Your task to perform on an android device: Clear the cart on amazon.com. Search for rayovac triple a on amazon.com, select the first entry, and add it to the cart. Image 0: 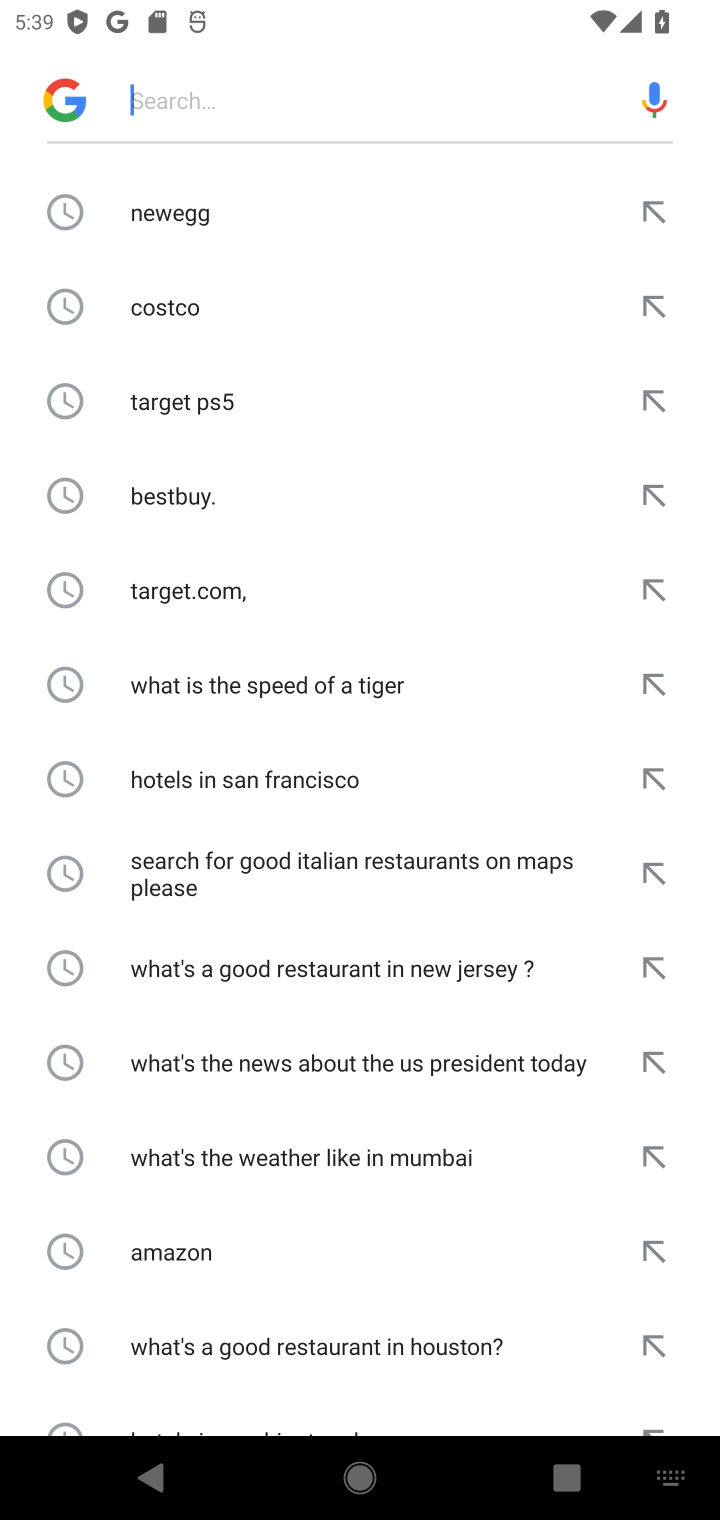
Step 0: press home button
Your task to perform on an android device: Clear the cart on amazon.com. Search for rayovac triple a on amazon.com, select the first entry, and add it to the cart. Image 1: 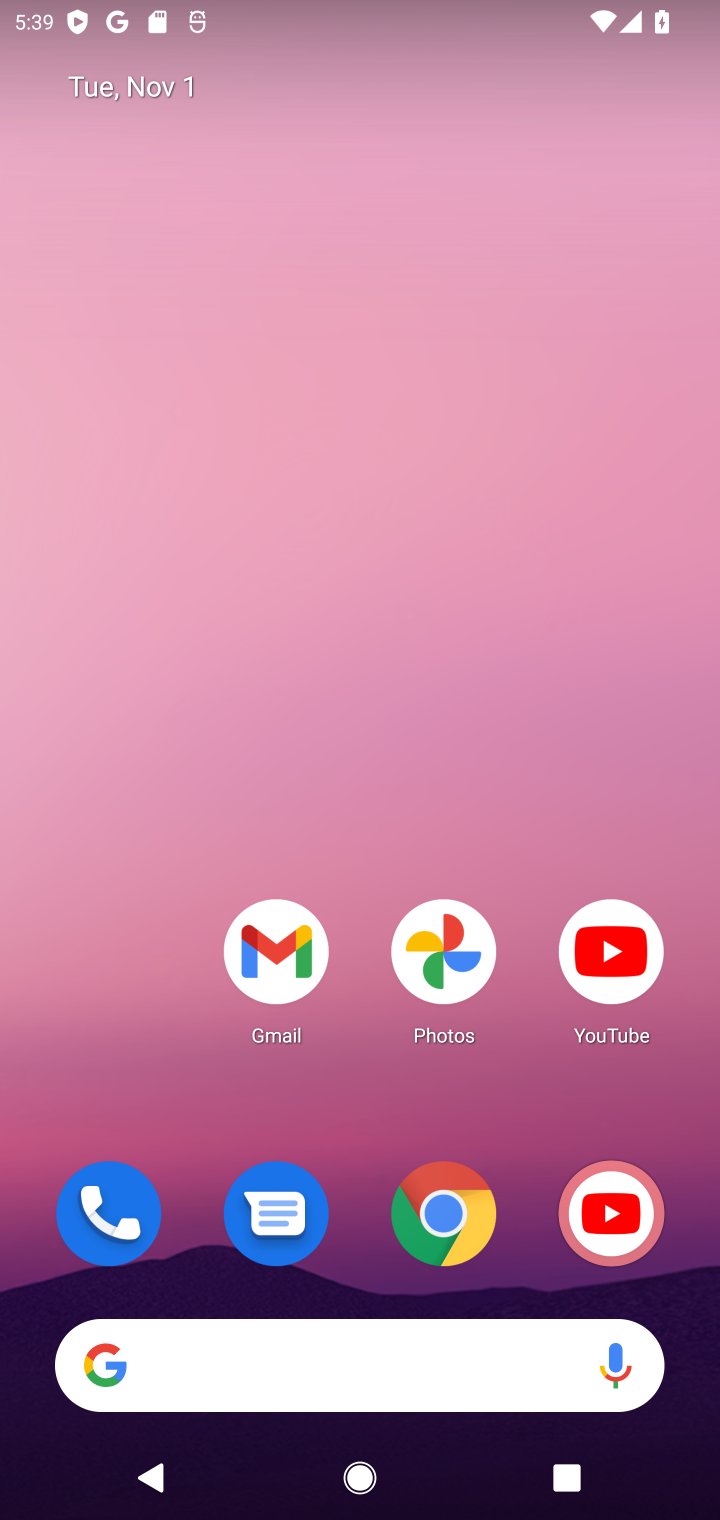
Step 1: click (431, 1218)
Your task to perform on an android device: Clear the cart on amazon.com. Search for rayovac triple a on amazon.com, select the first entry, and add it to the cart. Image 2: 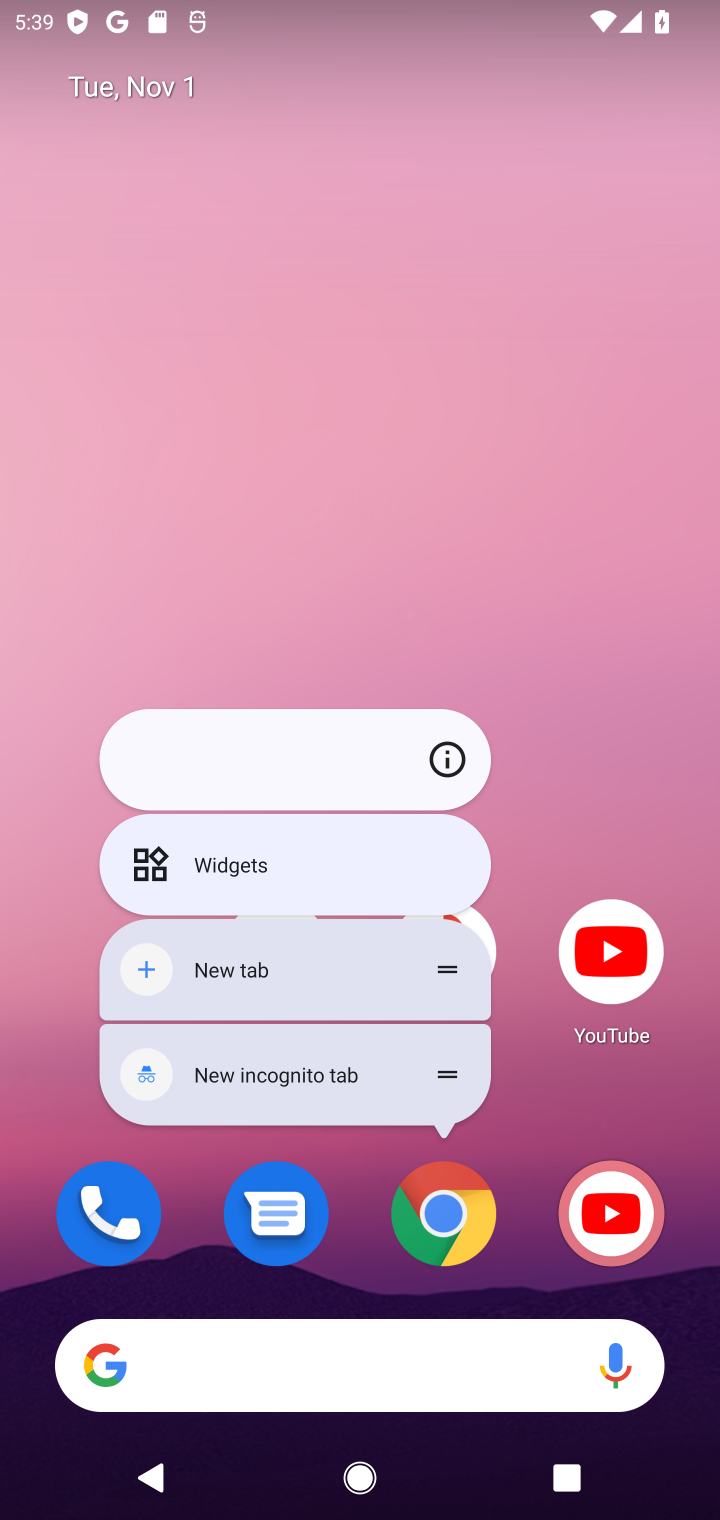
Step 2: click (450, 1246)
Your task to perform on an android device: Clear the cart on amazon.com. Search for rayovac triple a on amazon.com, select the first entry, and add it to the cart. Image 3: 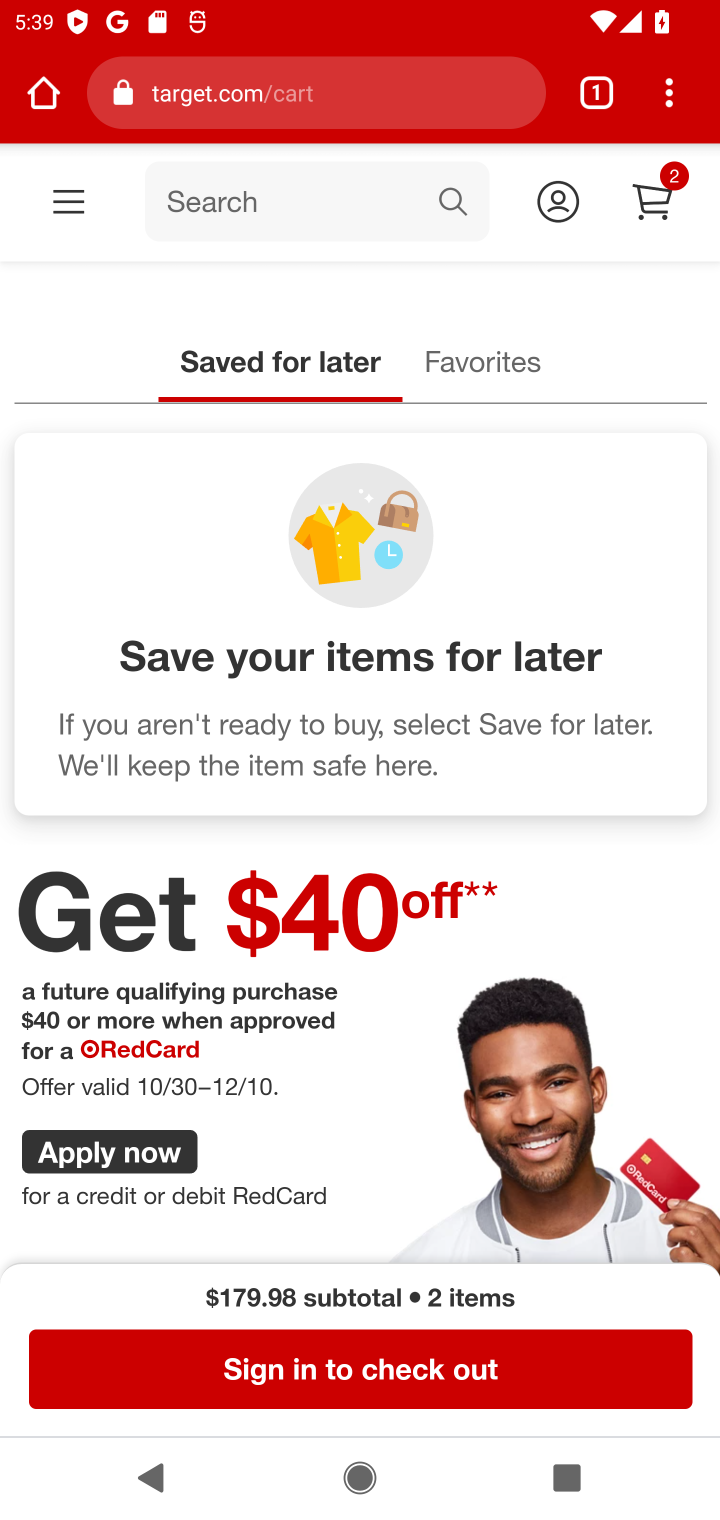
Step 3: click (278, 99)
Your task to perform on an android device: Clear the cart on amazon.com. Search for rayovac triple a on amazon.com, select the first entry, and add it to the cart. Image 4: 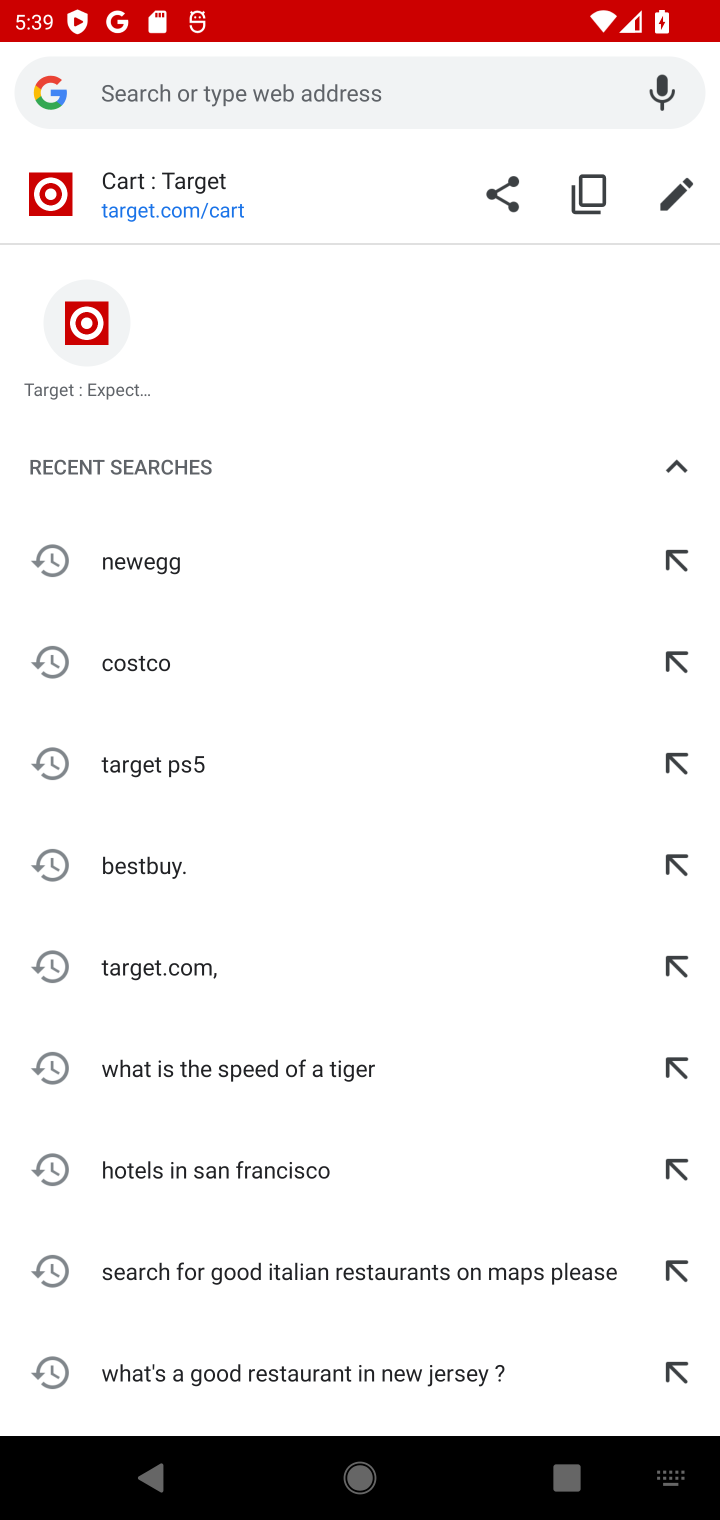
Step 4: type " amazon.com"
Your task to perform on an android device: Clear the cart on amazon.com. Search for rayovac triple a on amazon.com, select the first entry, and add it to the cart. Image 5: 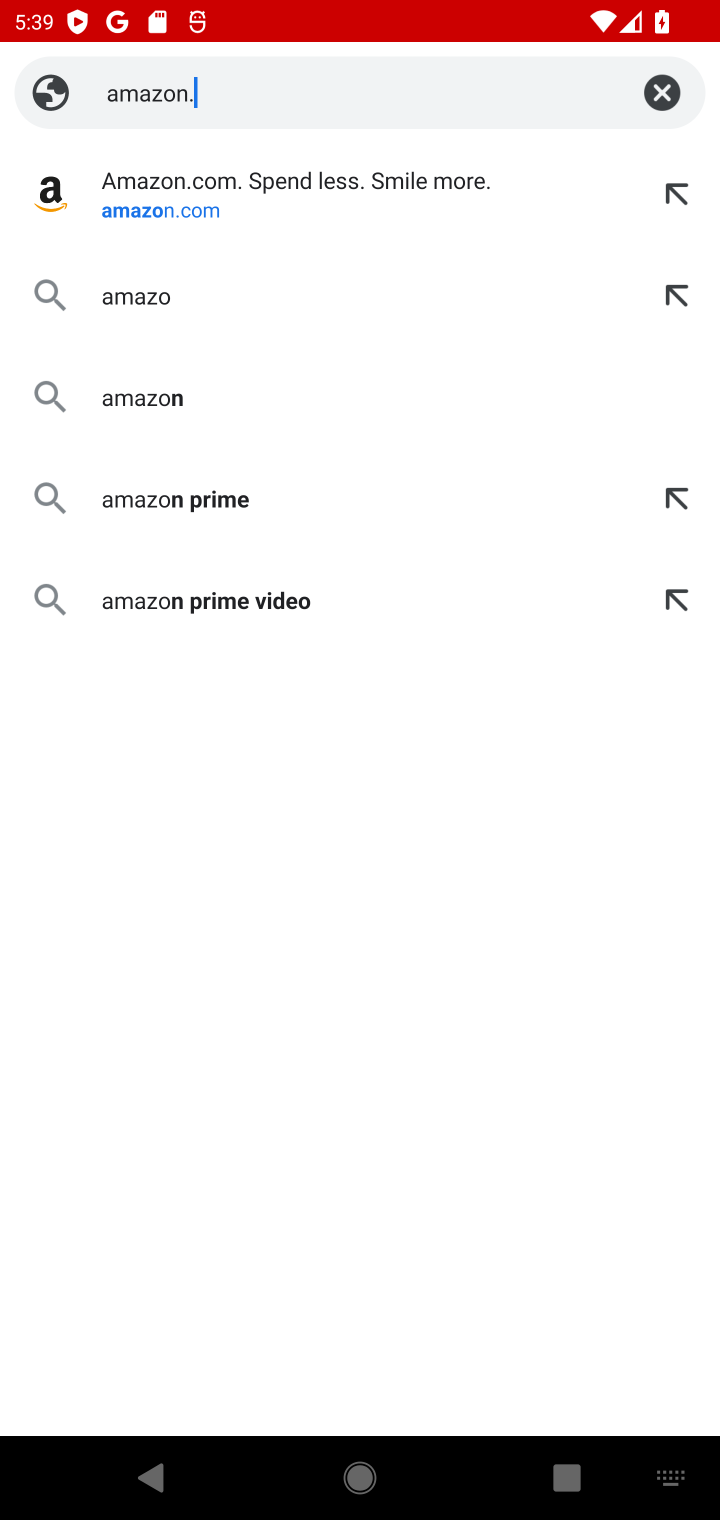
Step 5: type ""
Your task to perform on an android device: Clear the cart on amazon.com. Search for rayovac triple a on amazon.com, select the first entry, and add it to the cart. Image 6: 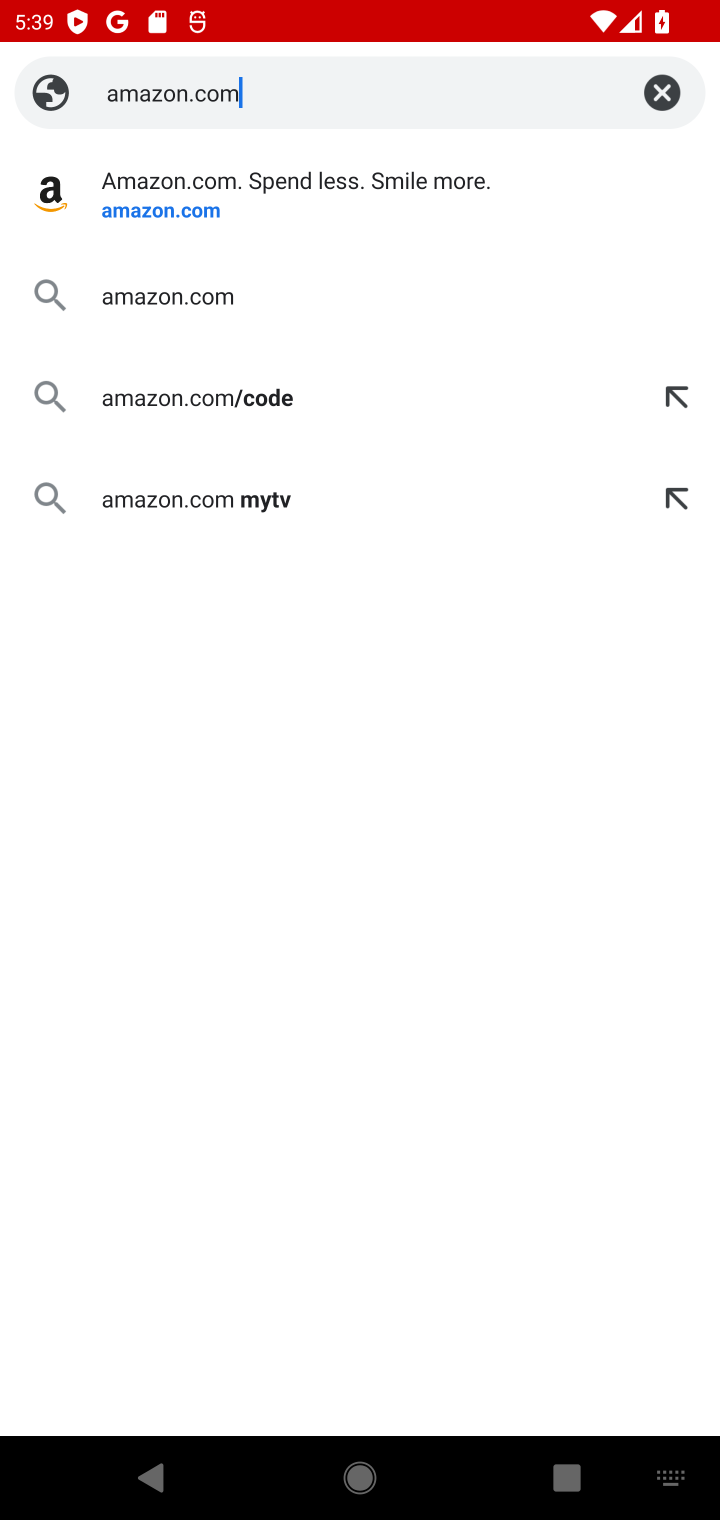
Step 6: click (392, 226)
Your task to perform on an android device: Clear the cart on amazon.com. Search for rayovac triple a on amazon.com, select the first entry, and add it to the cart. Image 7: 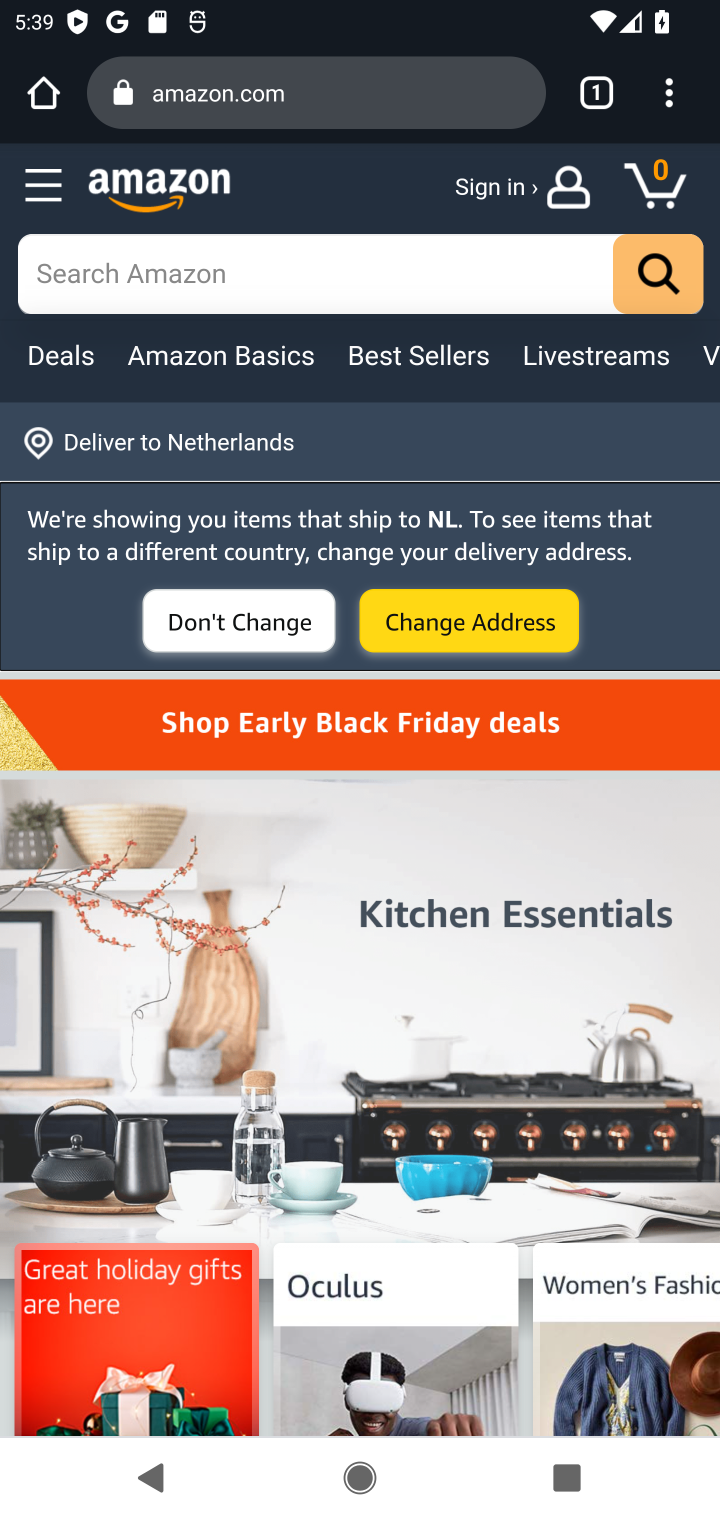
Step 7: click (659, 181)
Your task to perform on an android device: Clear the cart on amazon.com. Search for rayovac triple a on amazon.com, select the first entry, and add it to the cart. Image 8: 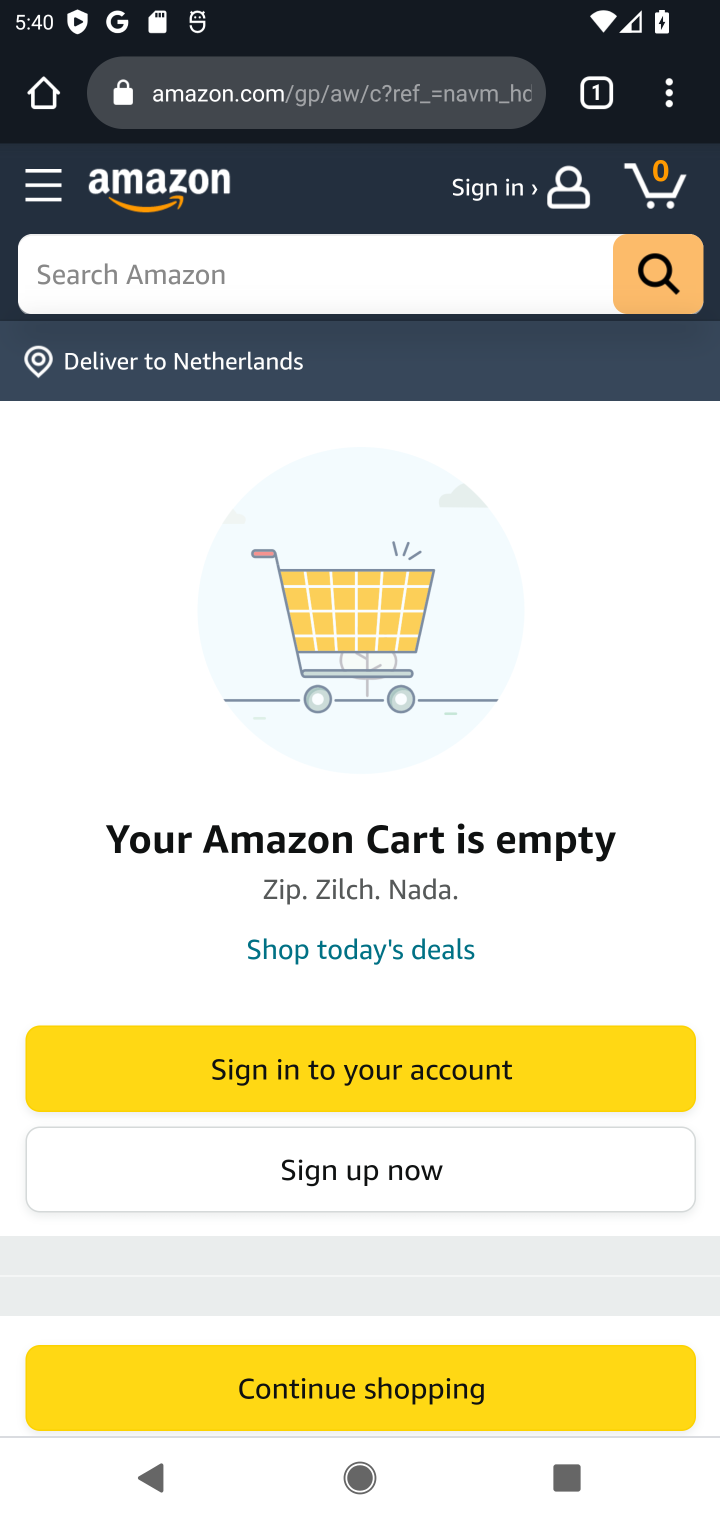
Step 8: click (316, 268)
Your task to perform on an android device: Clear the cart on amazon.com. Search for rayovac triple a on amazon.com, select the first entry, and add it to the cart. Image 9: 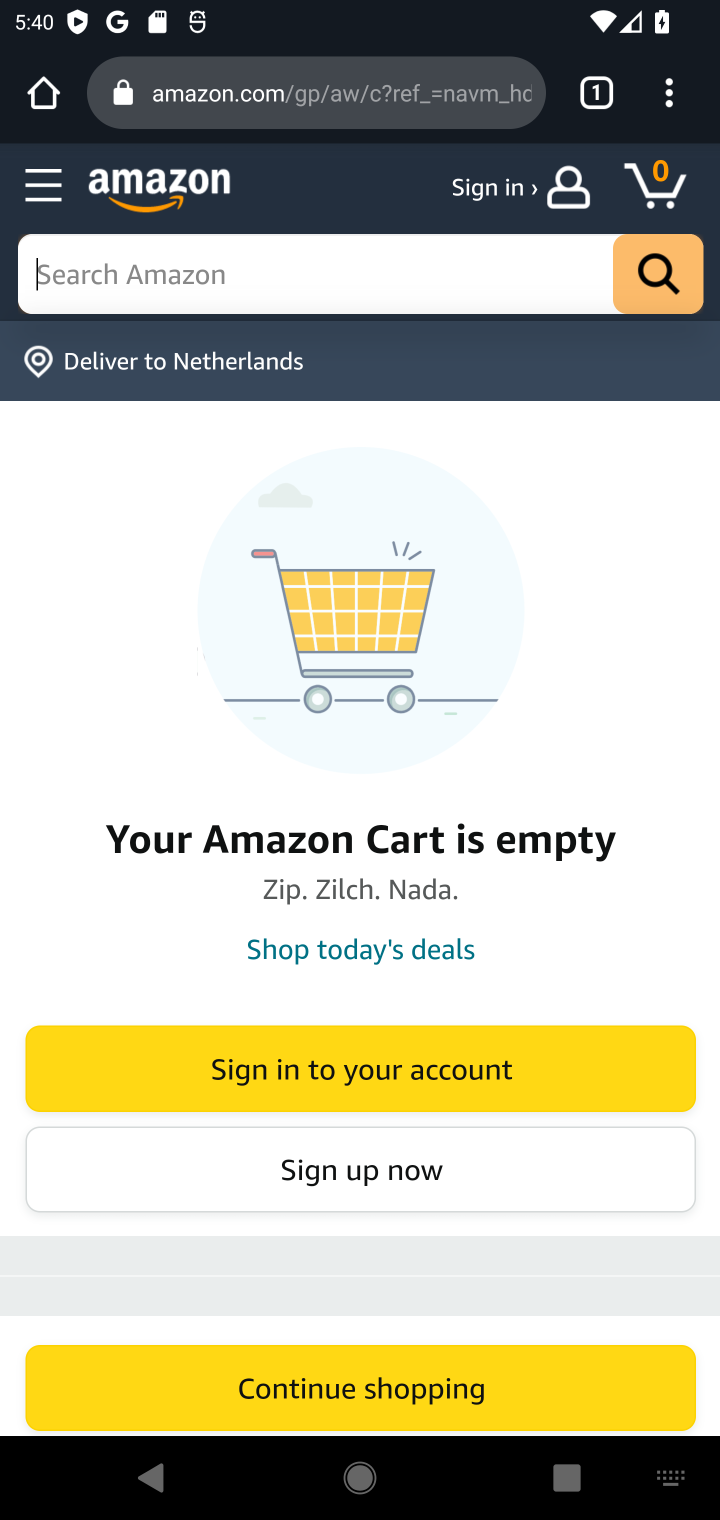
Step 9: type "rayovac triple"
Your task to perform on an android device: Clear the cart on amazon.com. Search for rayovac triple a on amazon.com, select the first entry, and add it to the cart. Image 10: 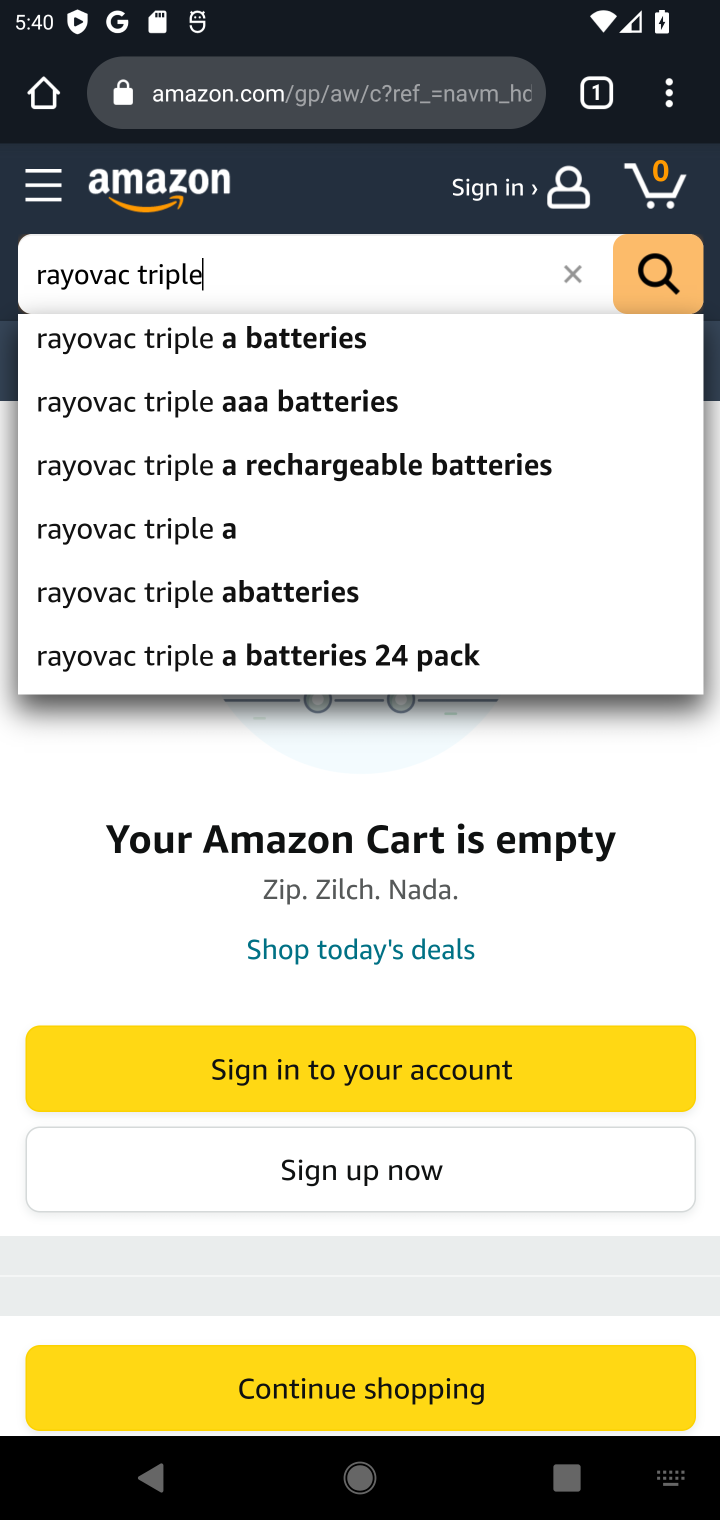
Step 10: click (364, 336)
Your task to perform on an android device: Clear the cart on amazon.com. Search for rayovac triple a on amazon.com, select the first entry, and add it to the cart. Image 11: 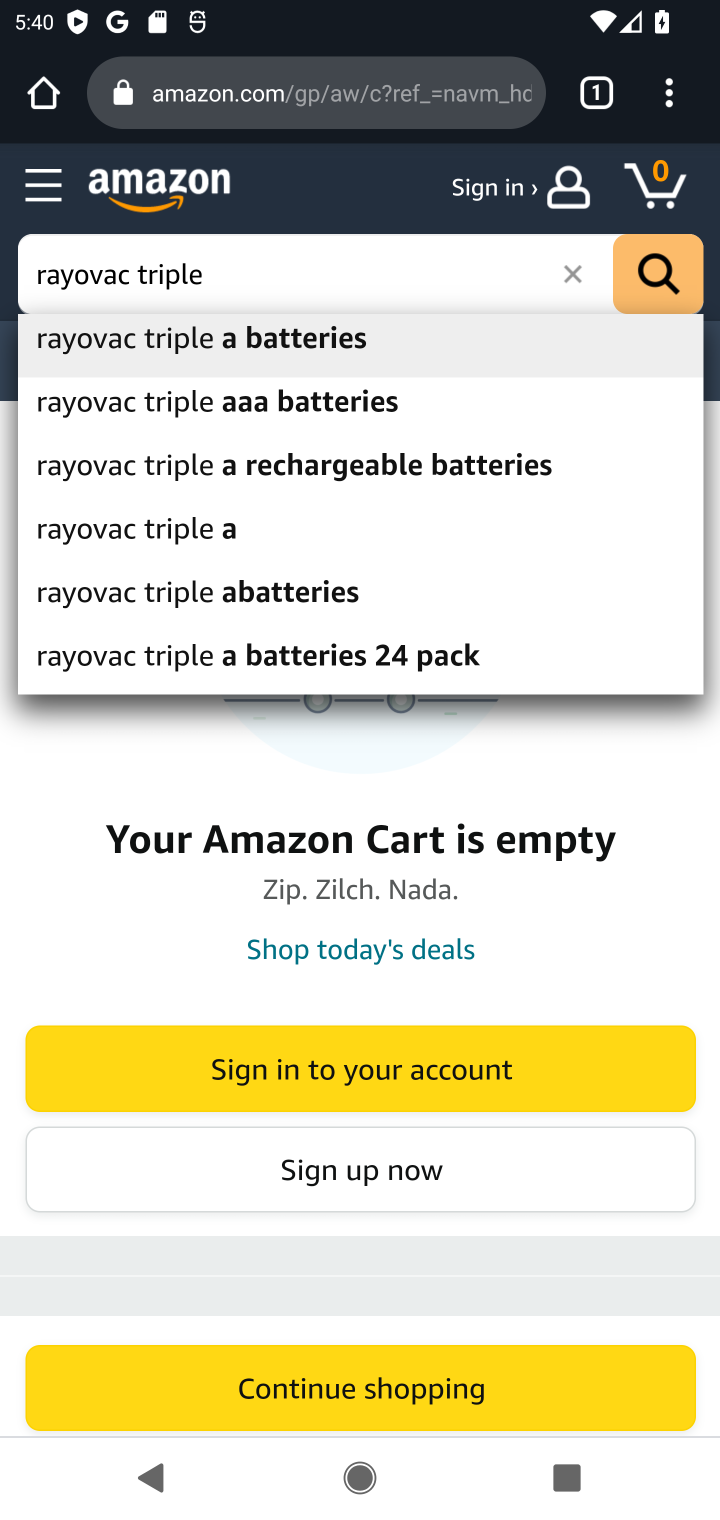
Step 11: click (358, 332)
Your task to perform on an android device: Clear the cart on amazon.com. Search for rayovac triple a on amazon.com, select the first entry, and add it to the cart. Image 12: 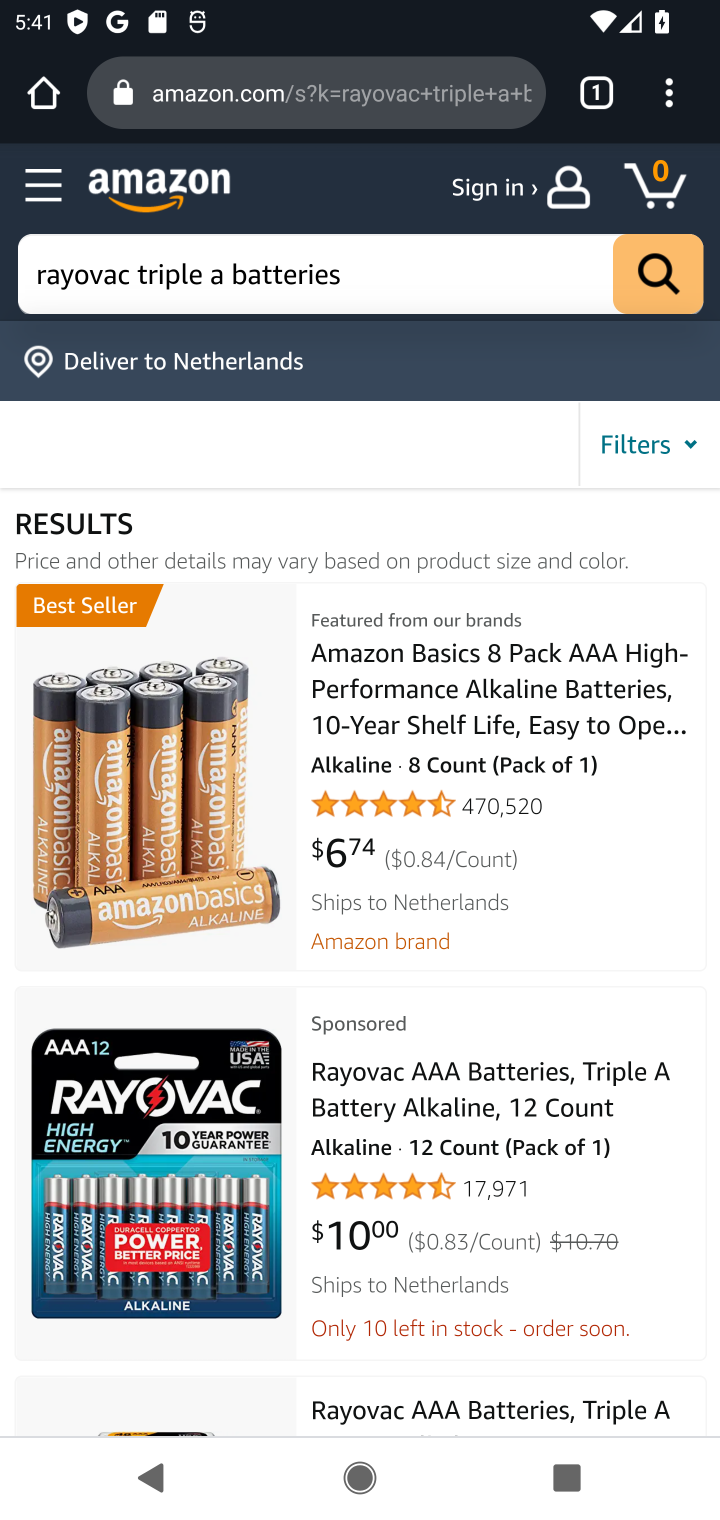
Step 12: click (413, 1101)
Your task to perform on an android device: Clear the cart on amazon.com. Search for rayovac triple a on amazon.com, select the first entry, and add it to the cart. Image 13: 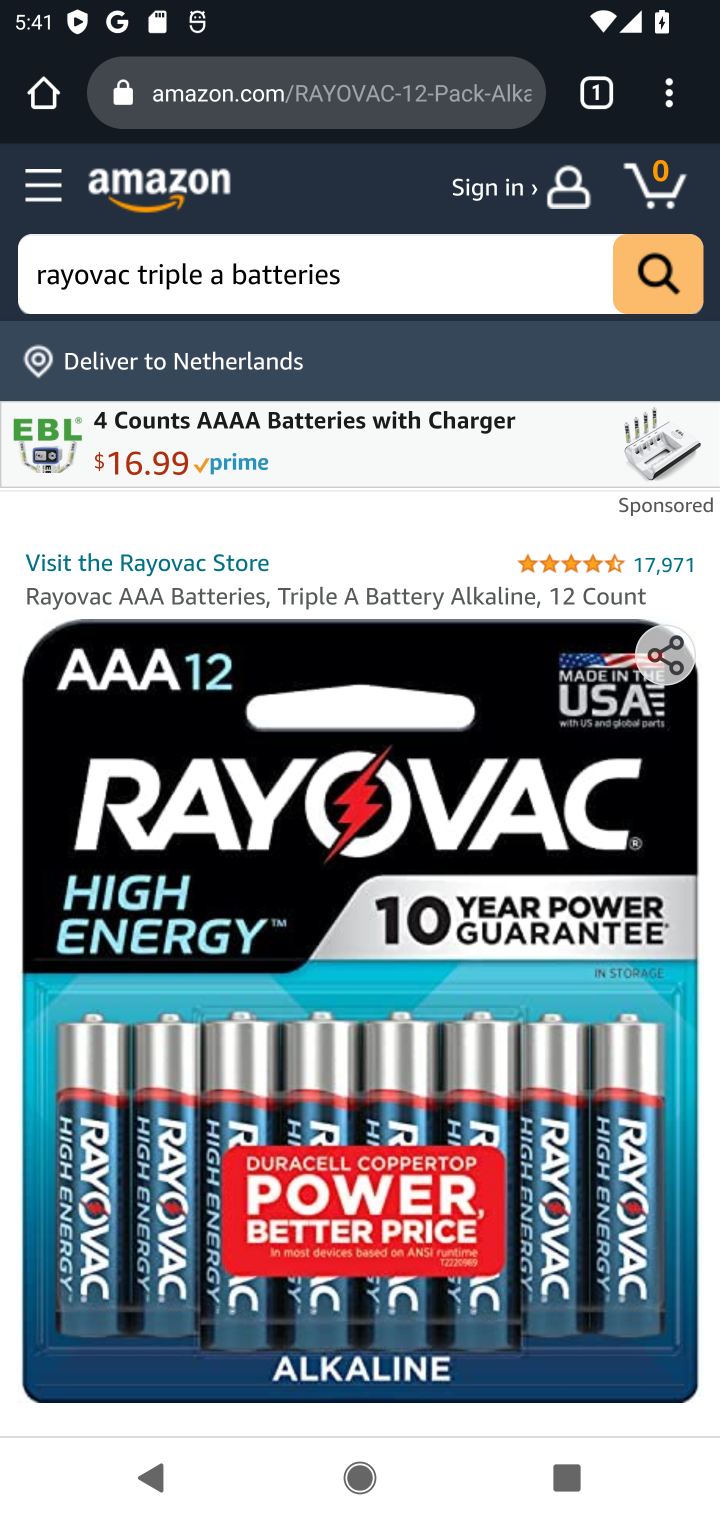
Step 13: drag from (351, 1088) to (393, 590)
Your task to perform on an android device: Clear the cart on amazon.com. Search for rayovac triple a on amazon.com, select the first entry, and add it to the cart. Image 14: 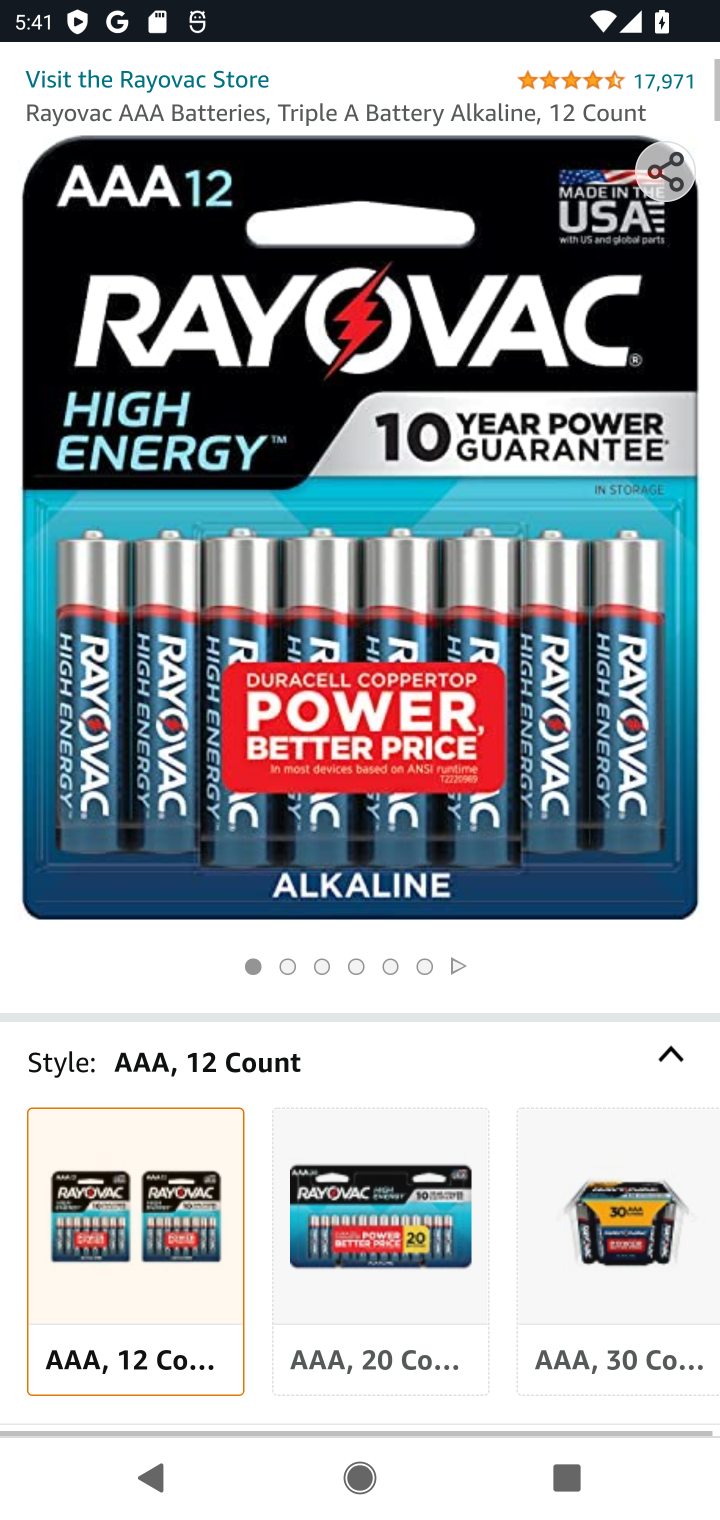
Step 14: drag from (488, 1160) to (514, 484)
Your task to perform on an android device: Clear the cart on amazon.com. Search for rayovac triple a on amazon.com, select the first entry, and add it to the cart. Image 15: 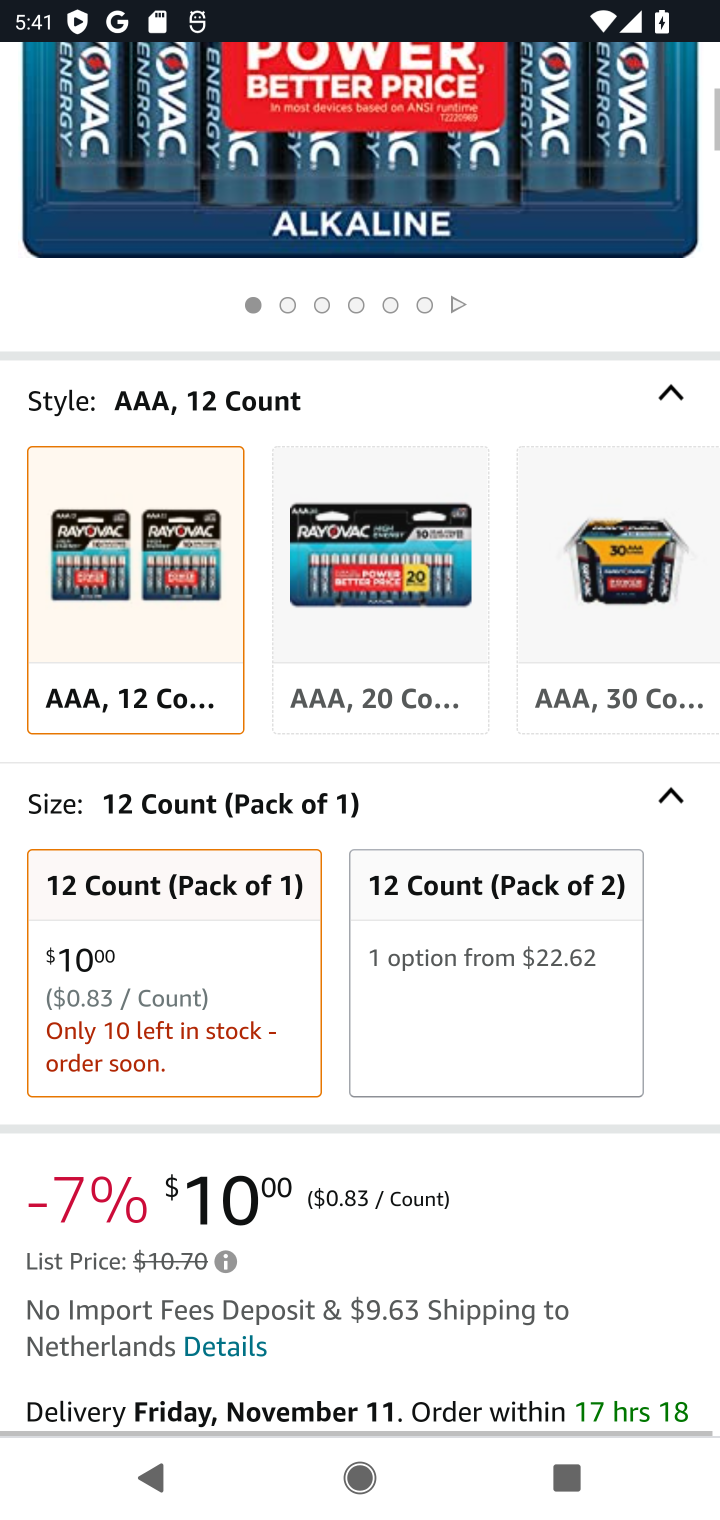
Step 15: drag from (398, 1080) to (353, 424)
Your task to perform on an android device: Clear the cart on amazon.com. Search for rayovac triple a on amazon.com, select the first entry, and add it to the cart. Image 16: 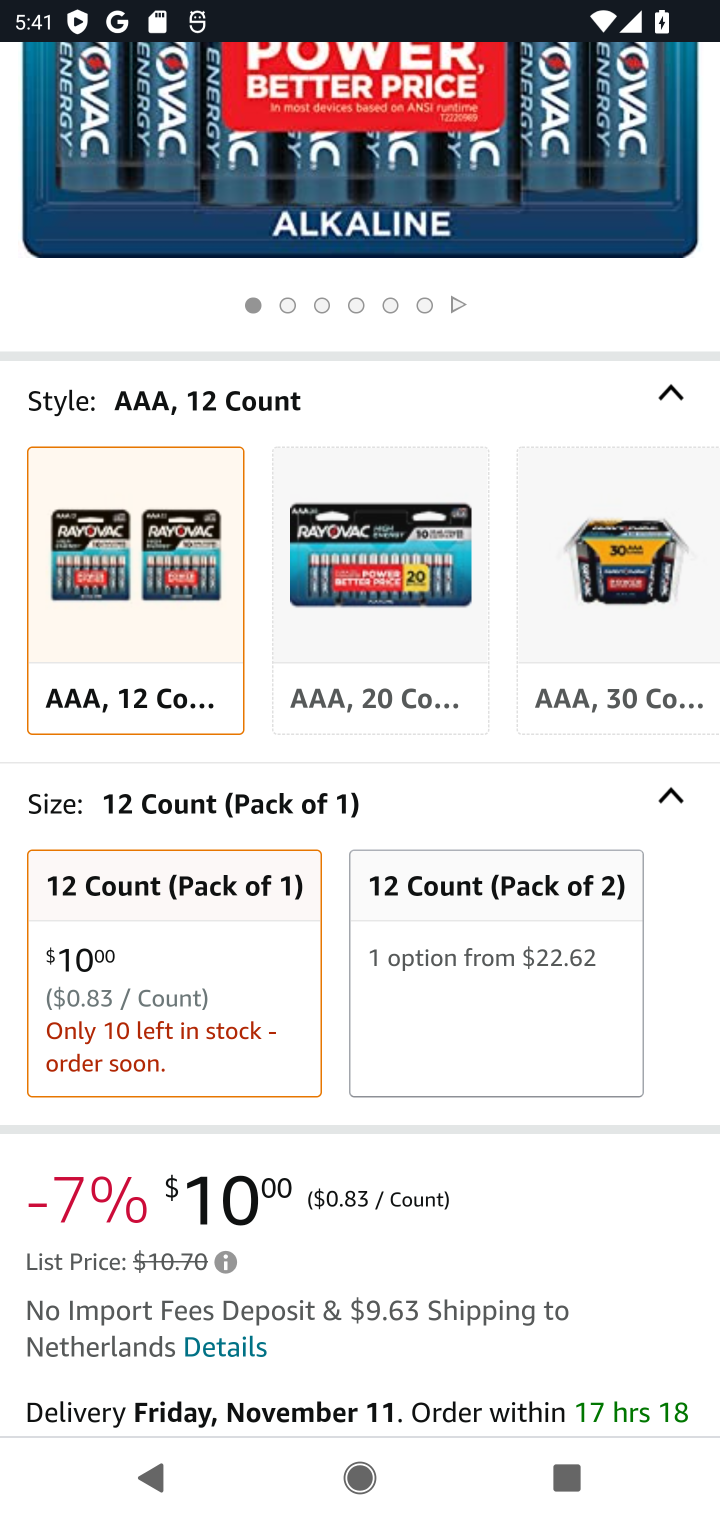
Step 16: drag from (417, 1059) to (427, 524)
Your task to perform on an android device: Clear the cart on amazon.com. Search for rayovac triple a on amazon.com, select the first entry, and add it to the cart. Image 17: 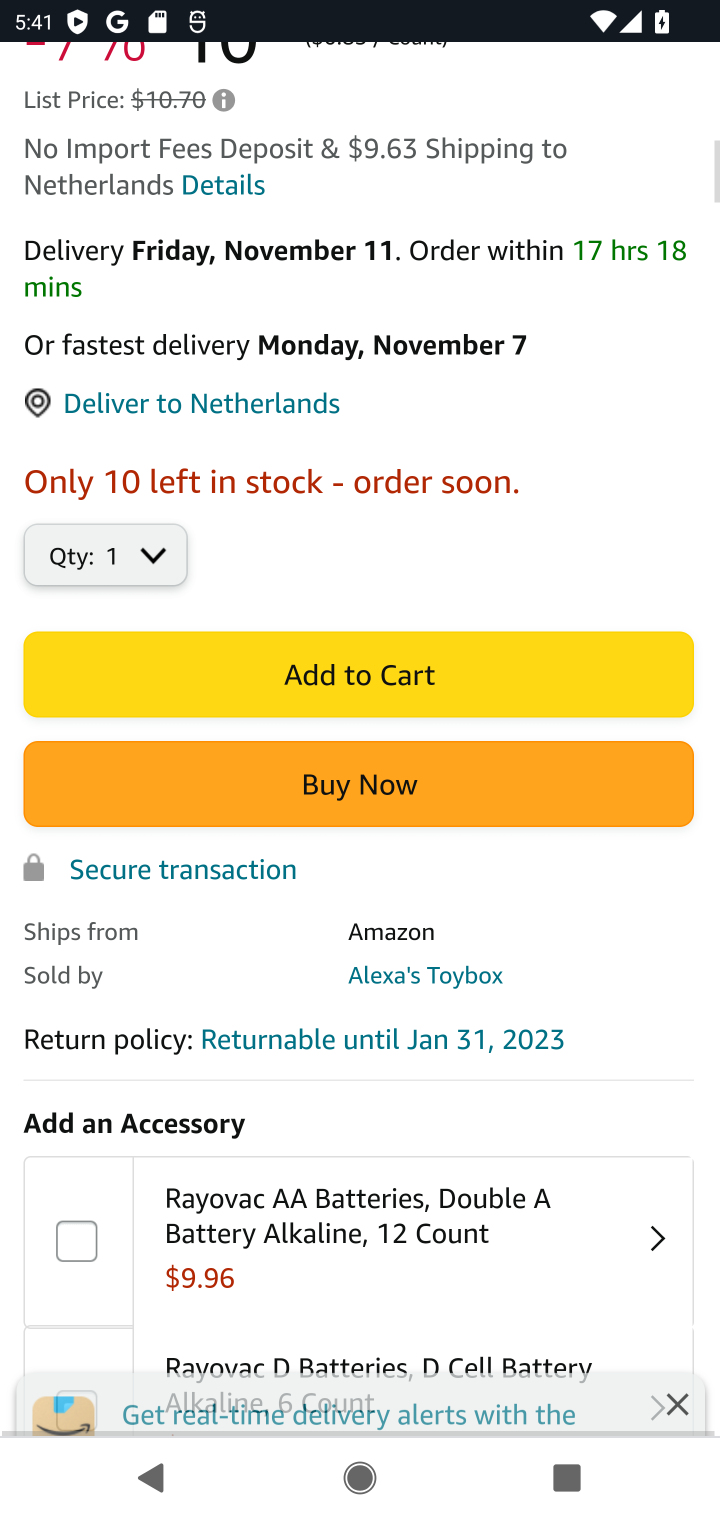
Step 17: click (444, 695)
Your task to perform on an android device: Clear the cart on amazon.com. Search for rayovac triple a on amazon.com, select the first entry, and add it to the cart. Image 18: 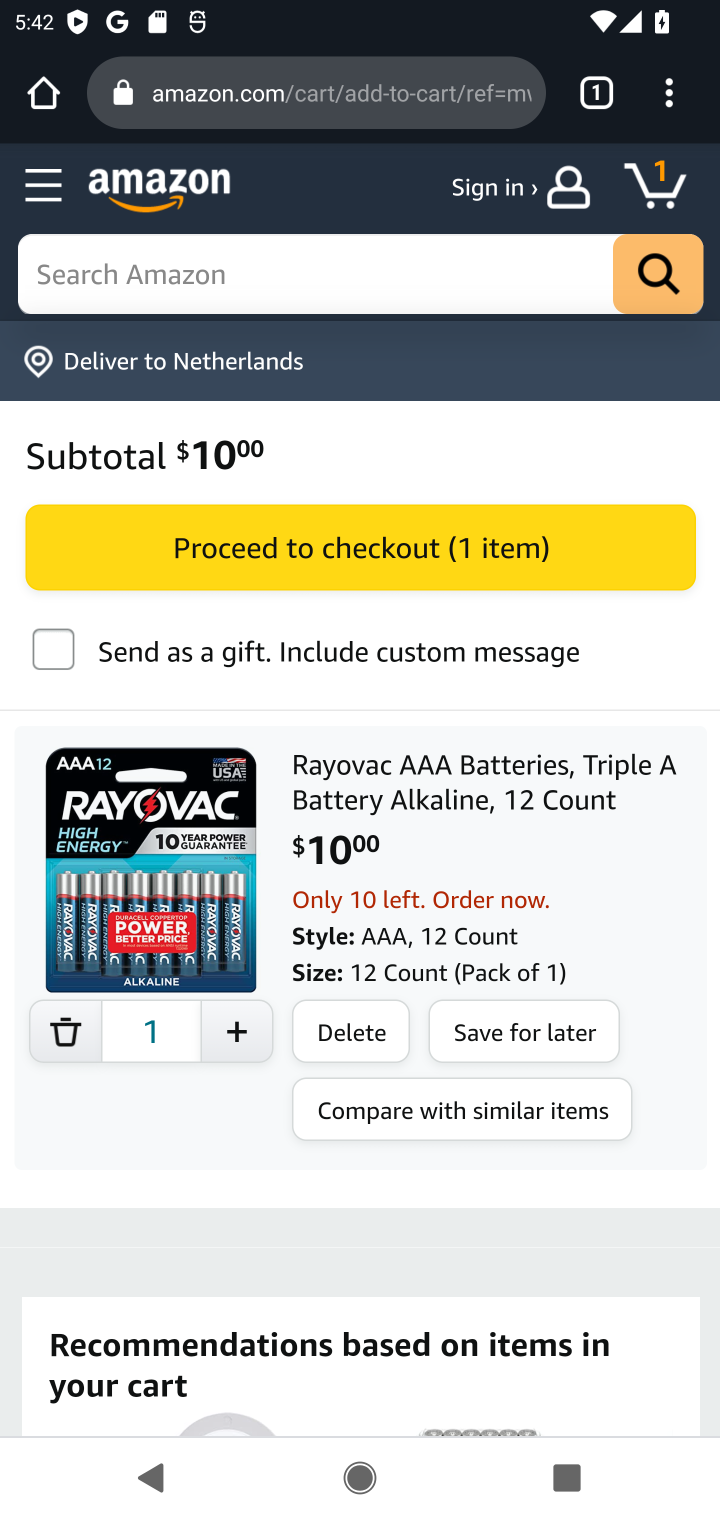
Step 18: click (650, 192)
Your task to perform on an android device: Clear the cart on amazon.com. Search for rayovac triple a on amazon.com, select the first entry, and add it to the cart. Image 19: 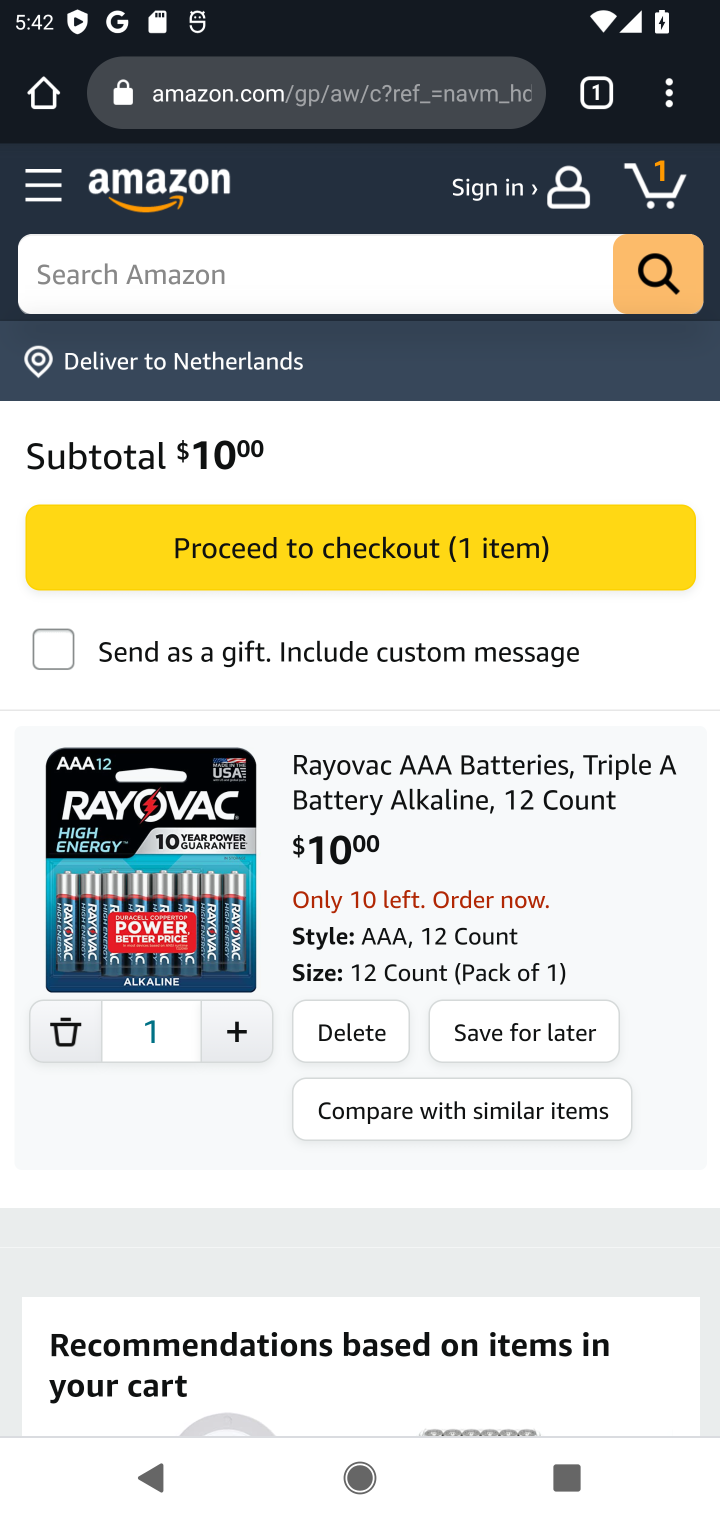
Step 19: click (535, 533)
Your task to perform on an android device: Clear the cart on amazon.com. Search for rayovac triple a on amazon.com, select the first entry, and add it to the cart. Image 20: 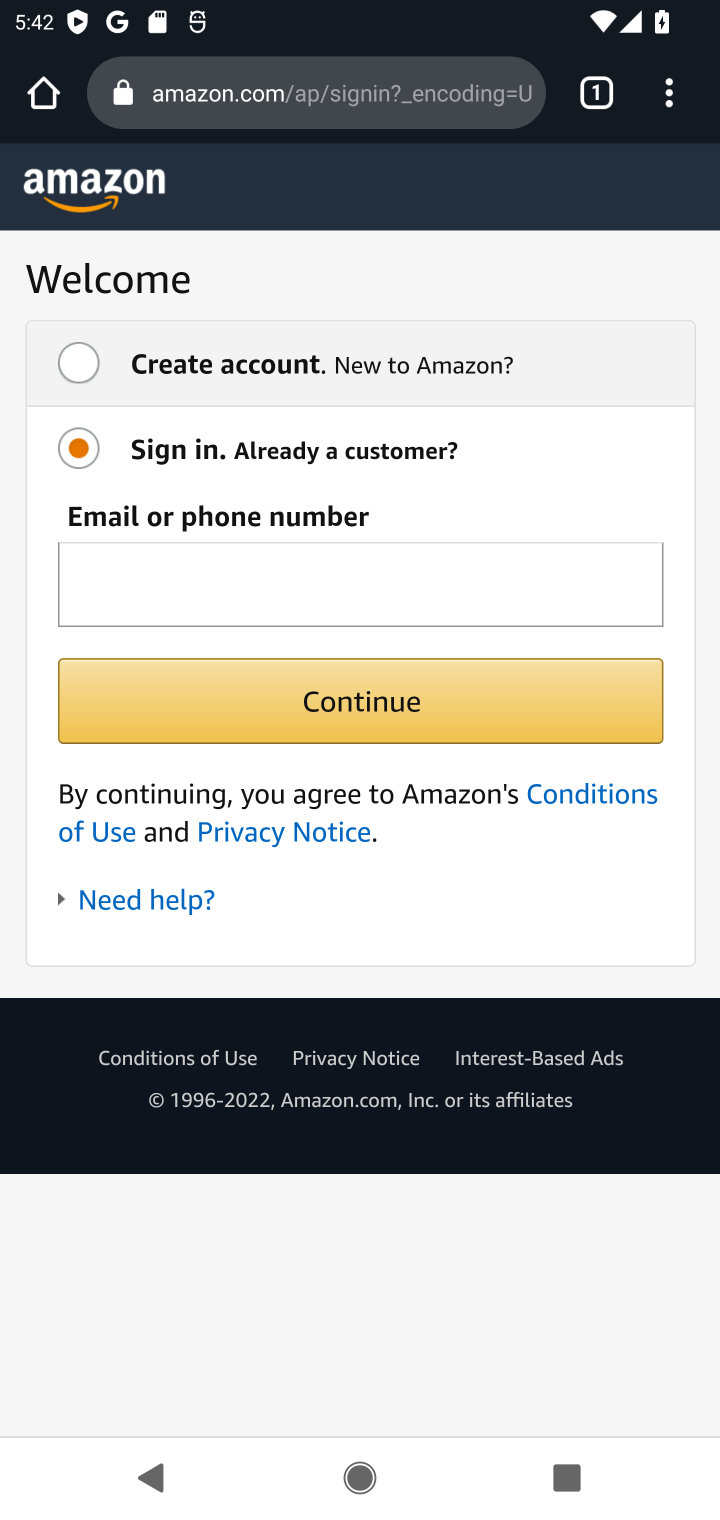
Step 20: task complete